Your task to perform on an android device: open app "Microsoft Authenticator" Image 0: 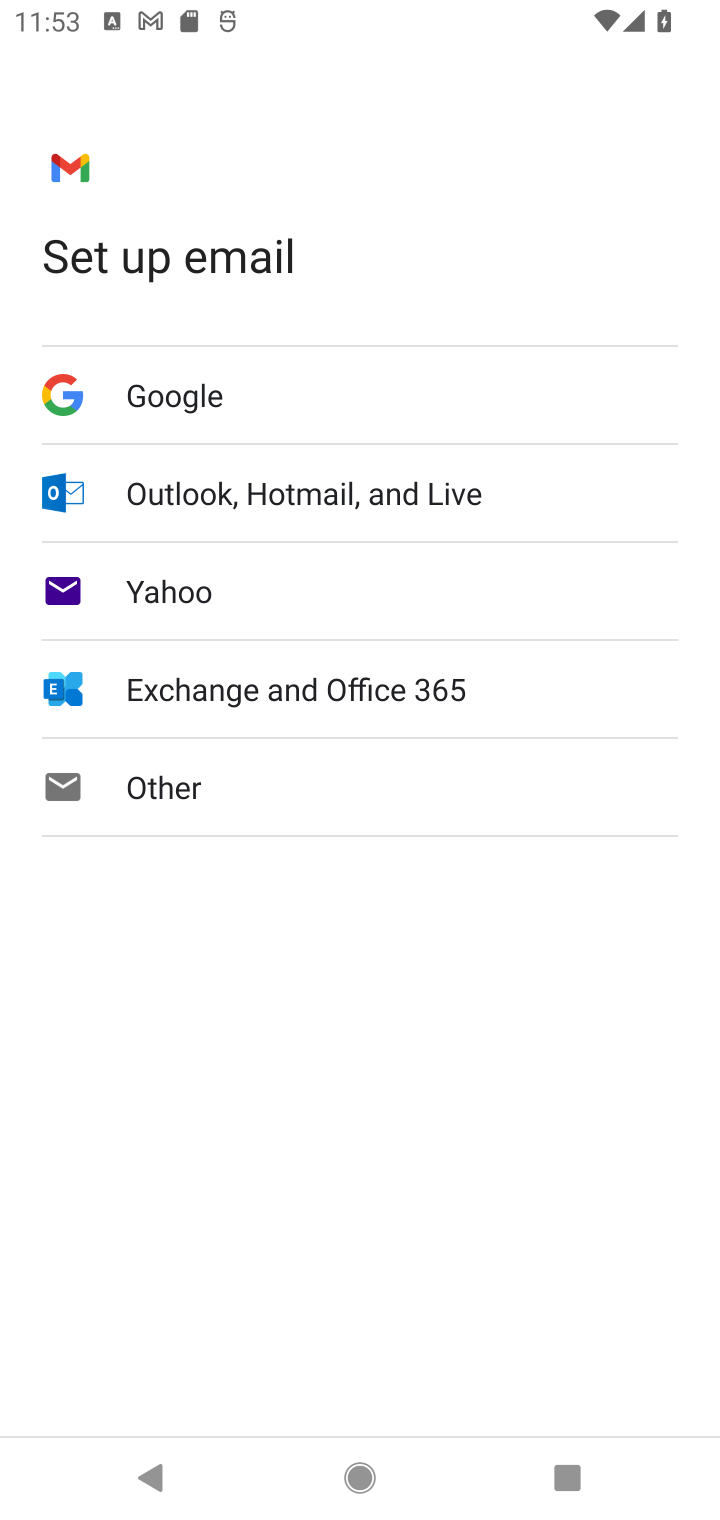
Step 0: press home button
Your task to perform on an android device: open app "Microsoft Authenticator" Image 1: 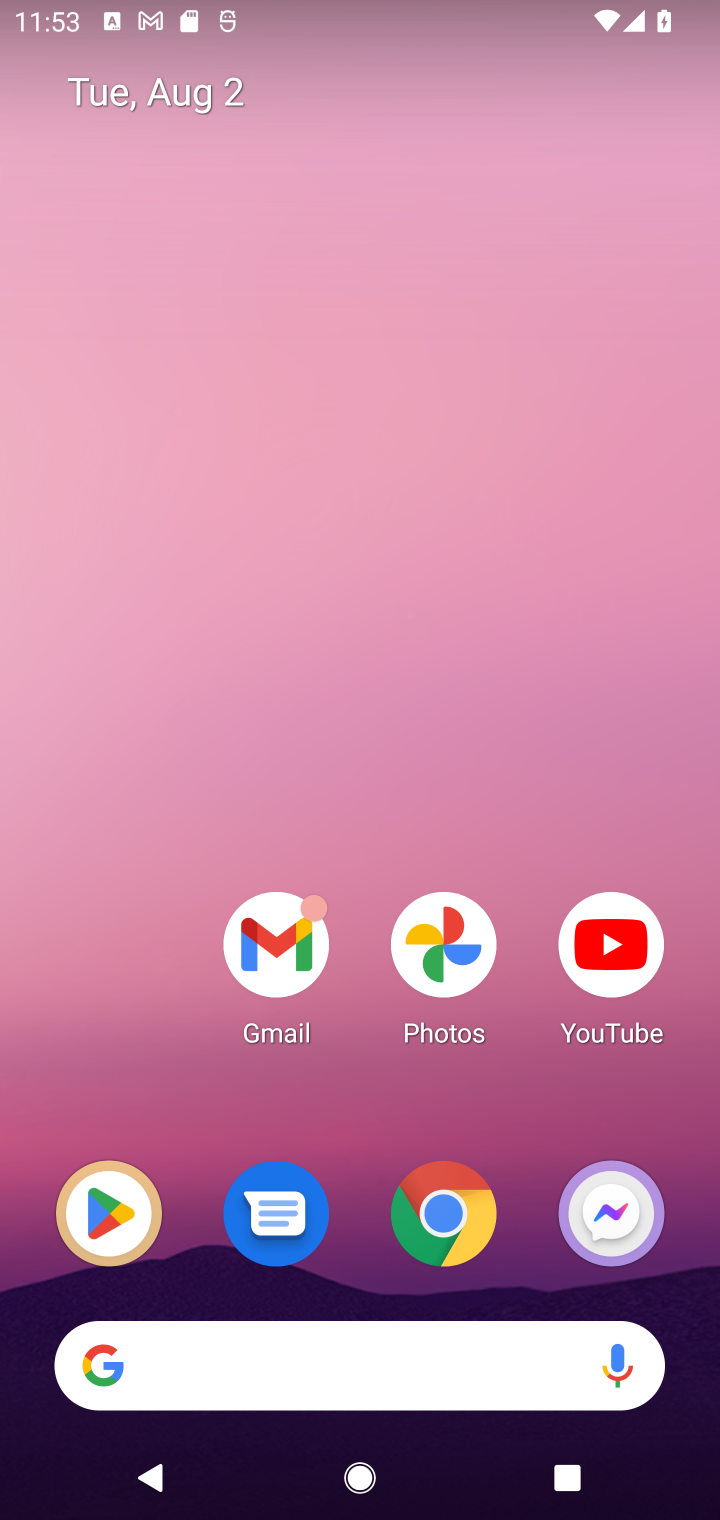
Step 1: click (107, 1215)
Your task to perform on an android device: open app "Microsoft Authenticator" Image 2: 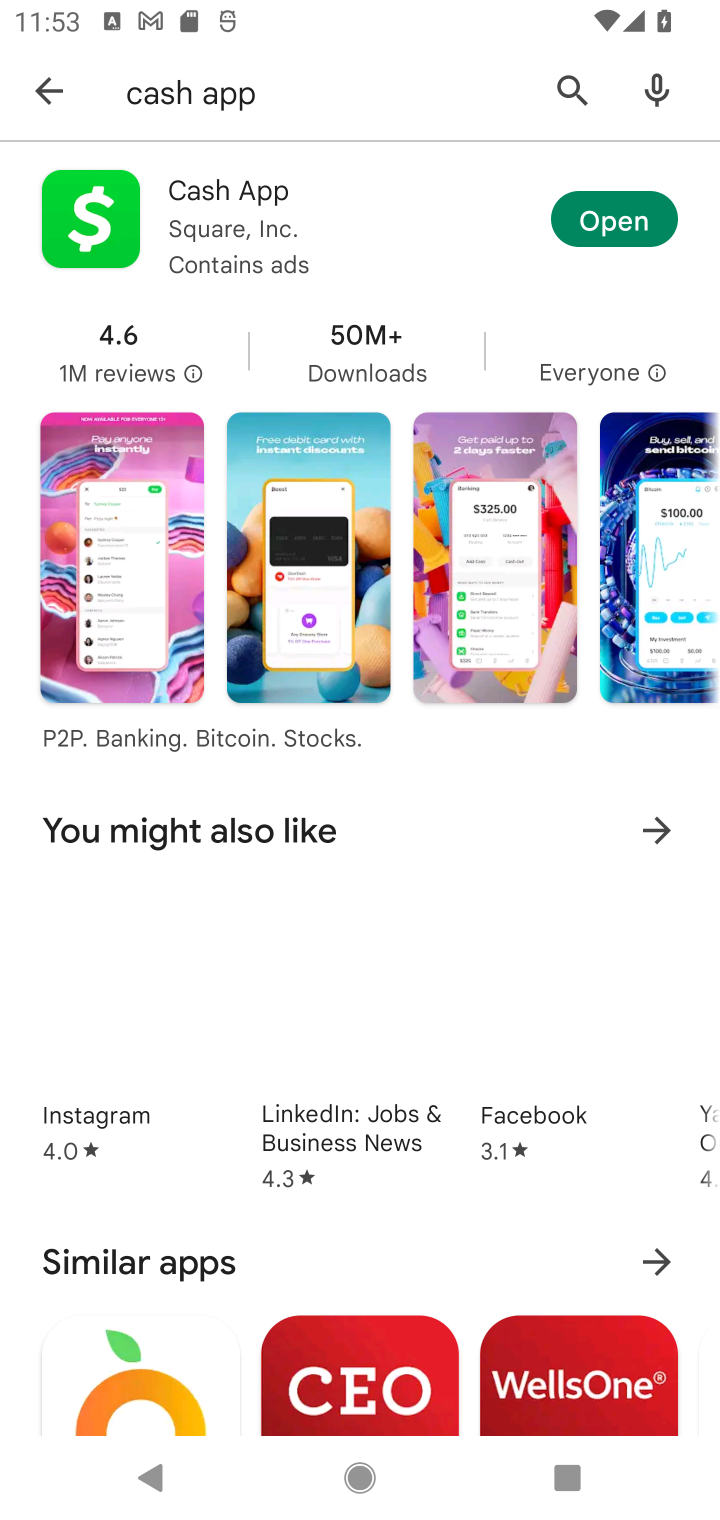
Step 2: click (42, 85)
Your task to perform on an android device: open app "Microsoft Authenticator" Image 3: 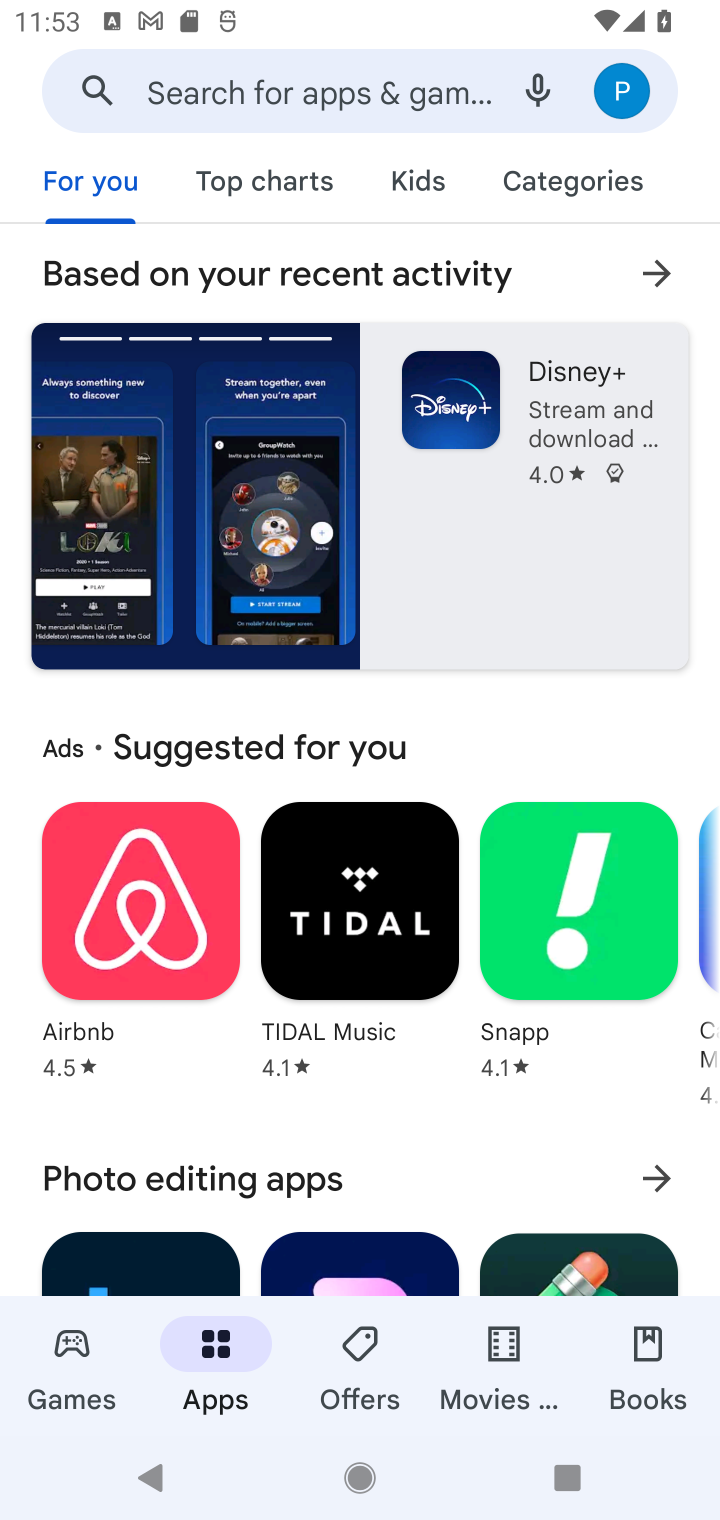
Step 3: click (316, 85)
Your task to perform on an android device: open app "Microsoft Authenticator" Image 4: 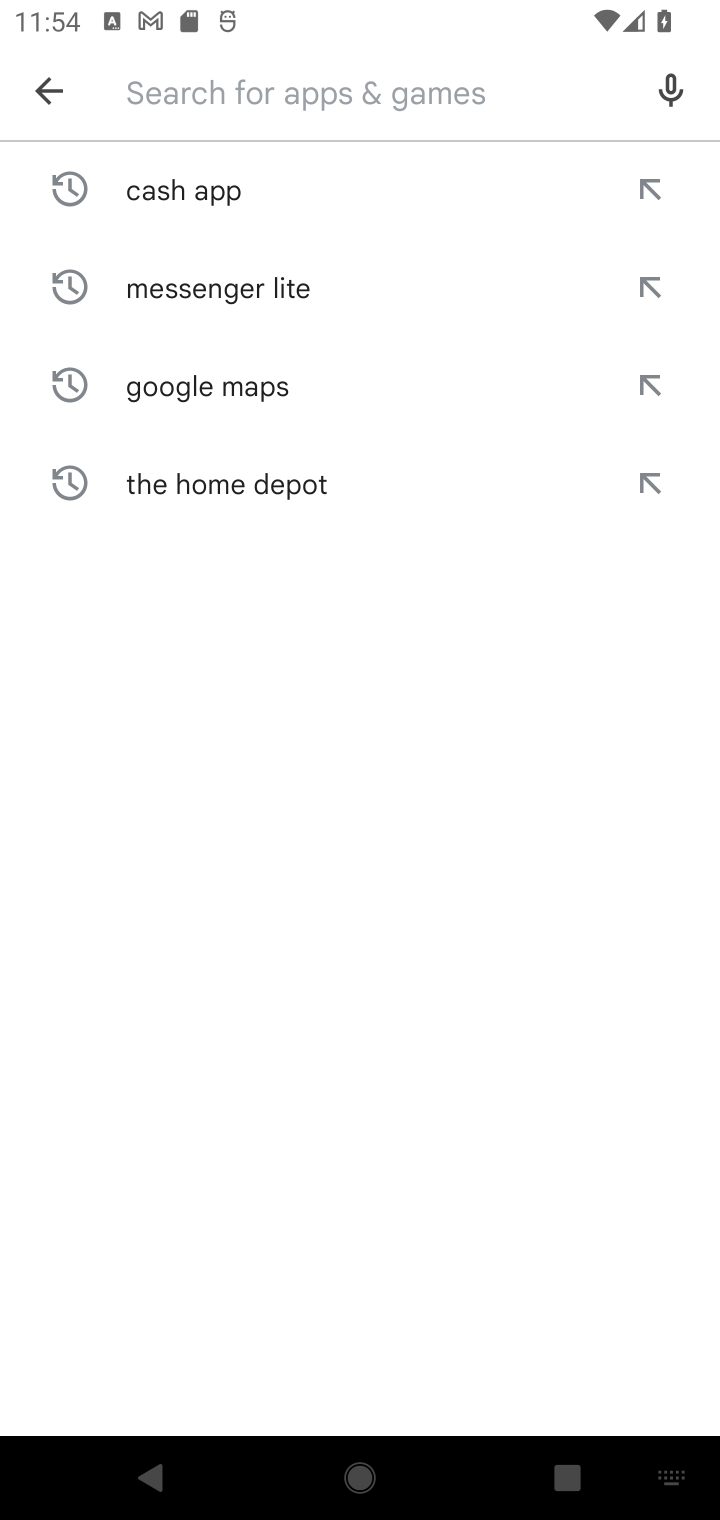
Step 4: type "Microsoft Authenticator"
Your task to perform on an android device: open app "Microsoft Authenticator" Image 5: 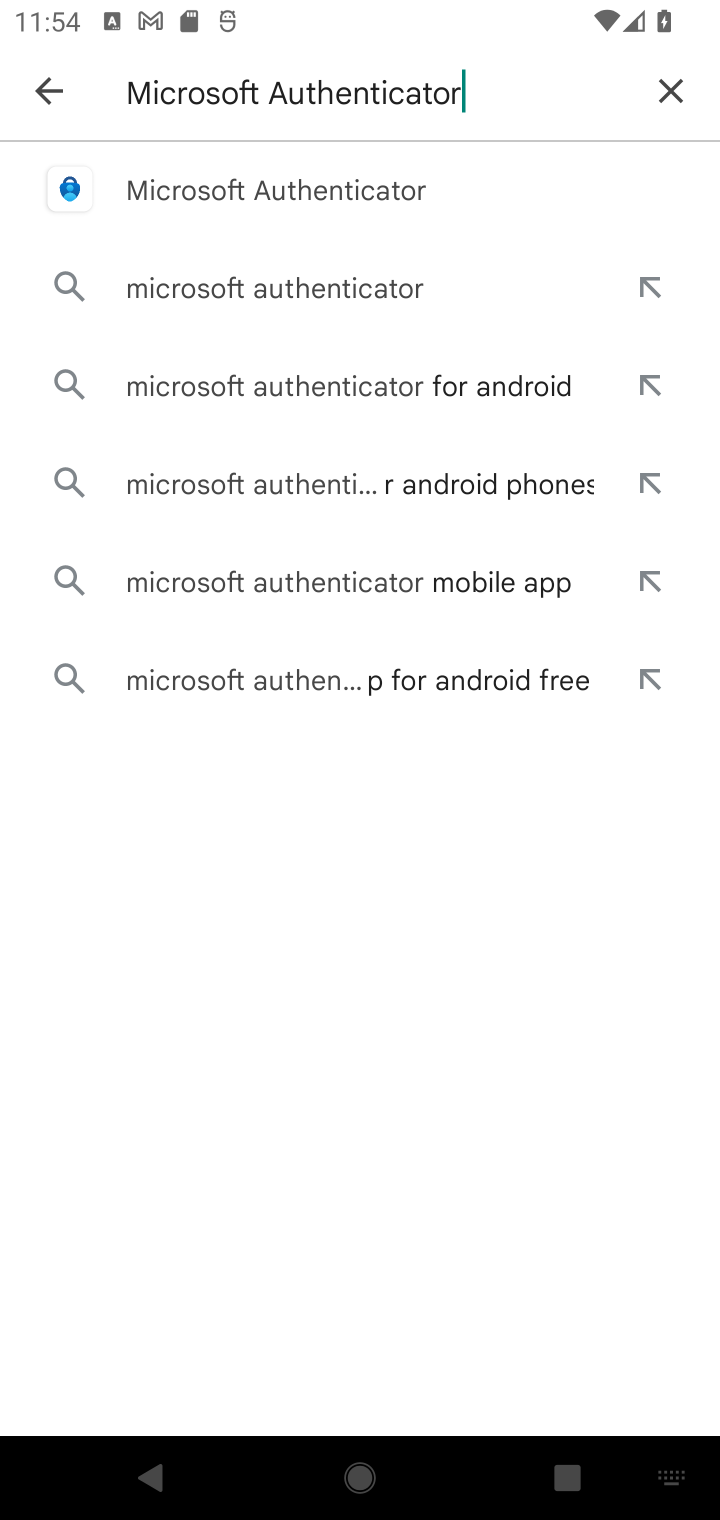
Step 5: click (282, 196)
Your task to perform on an android device: open app "Microsoft Authenticator" Image 6: 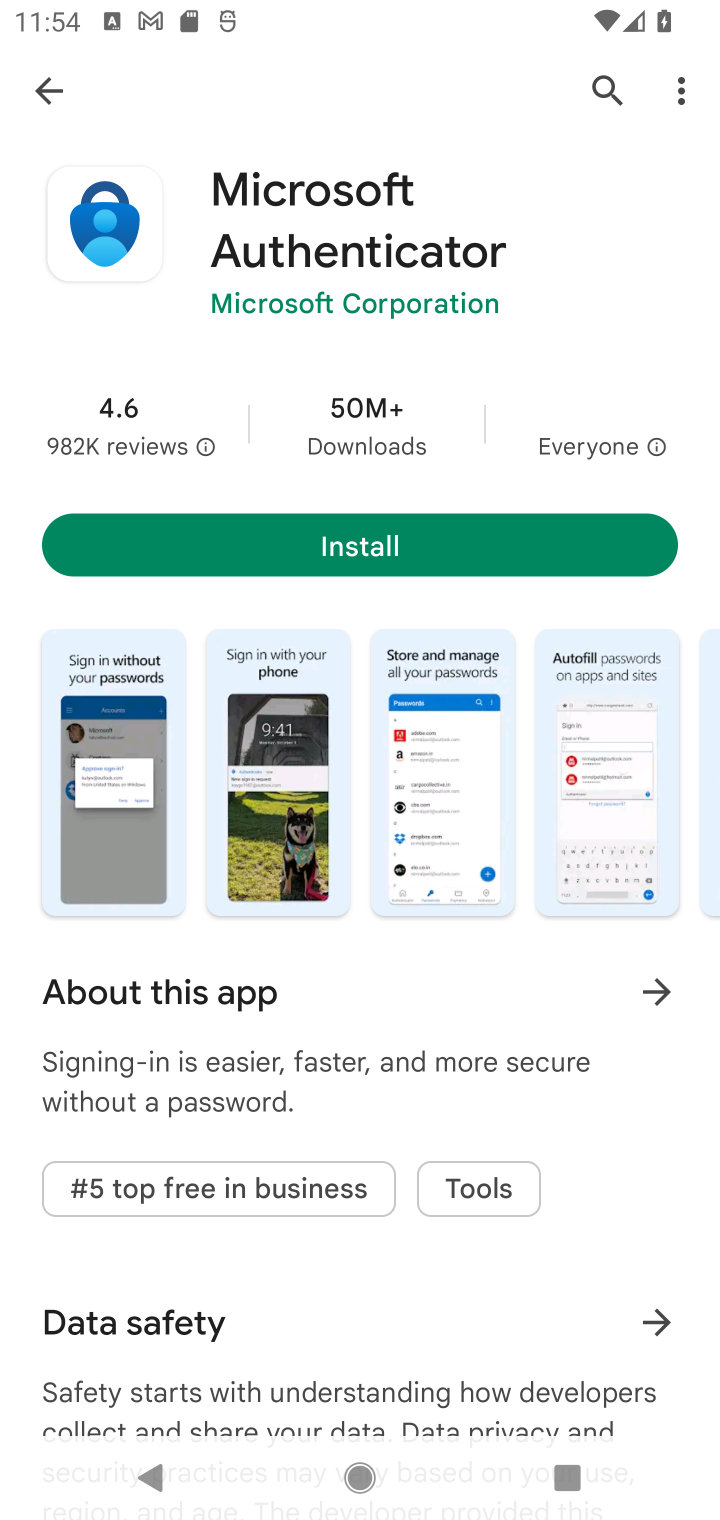
Step 6: click (351, 531)
Your task to perform on an android device: open app "Microsoft Authenticator" Image 7: 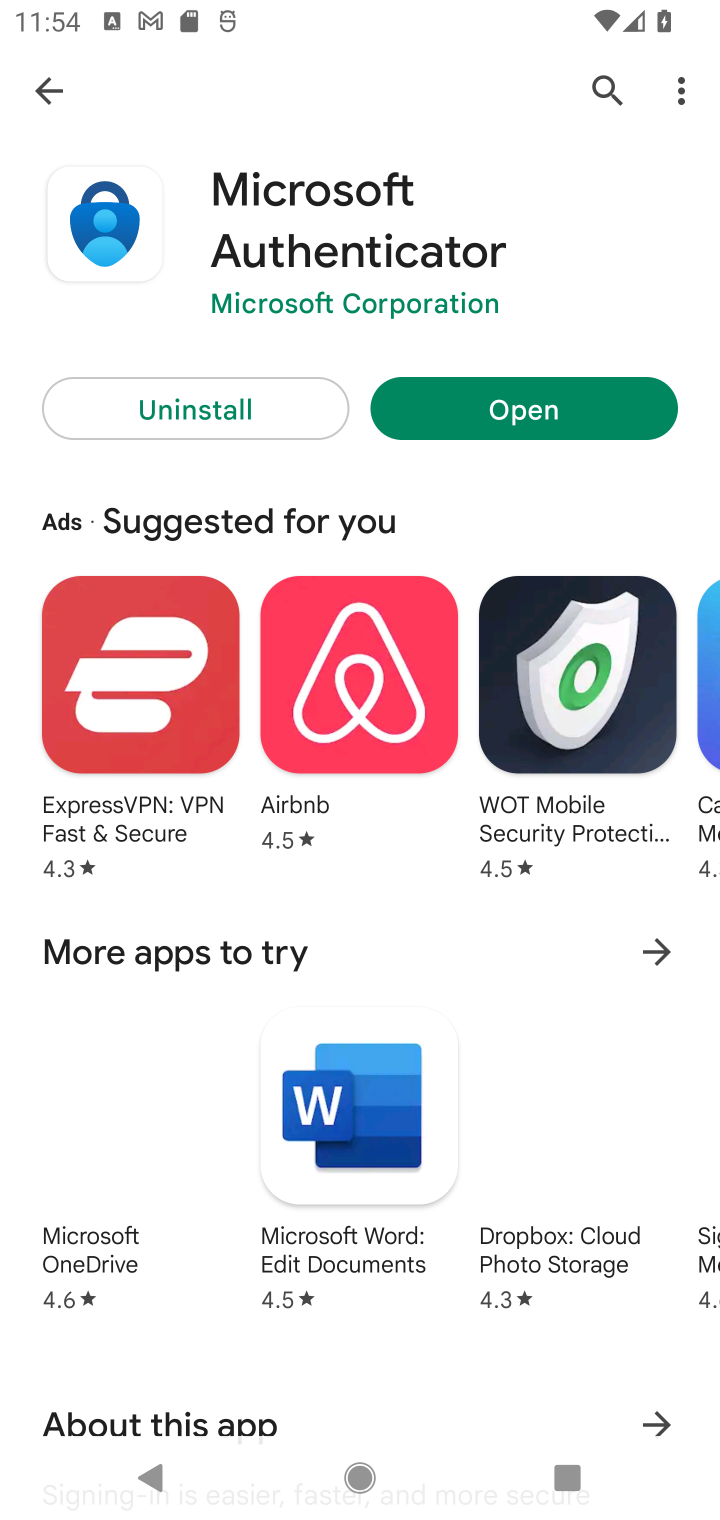
Step 7: click (515, 400)
Your task to perform on an android device: open app "Microsoft Authenticator" Image 8: 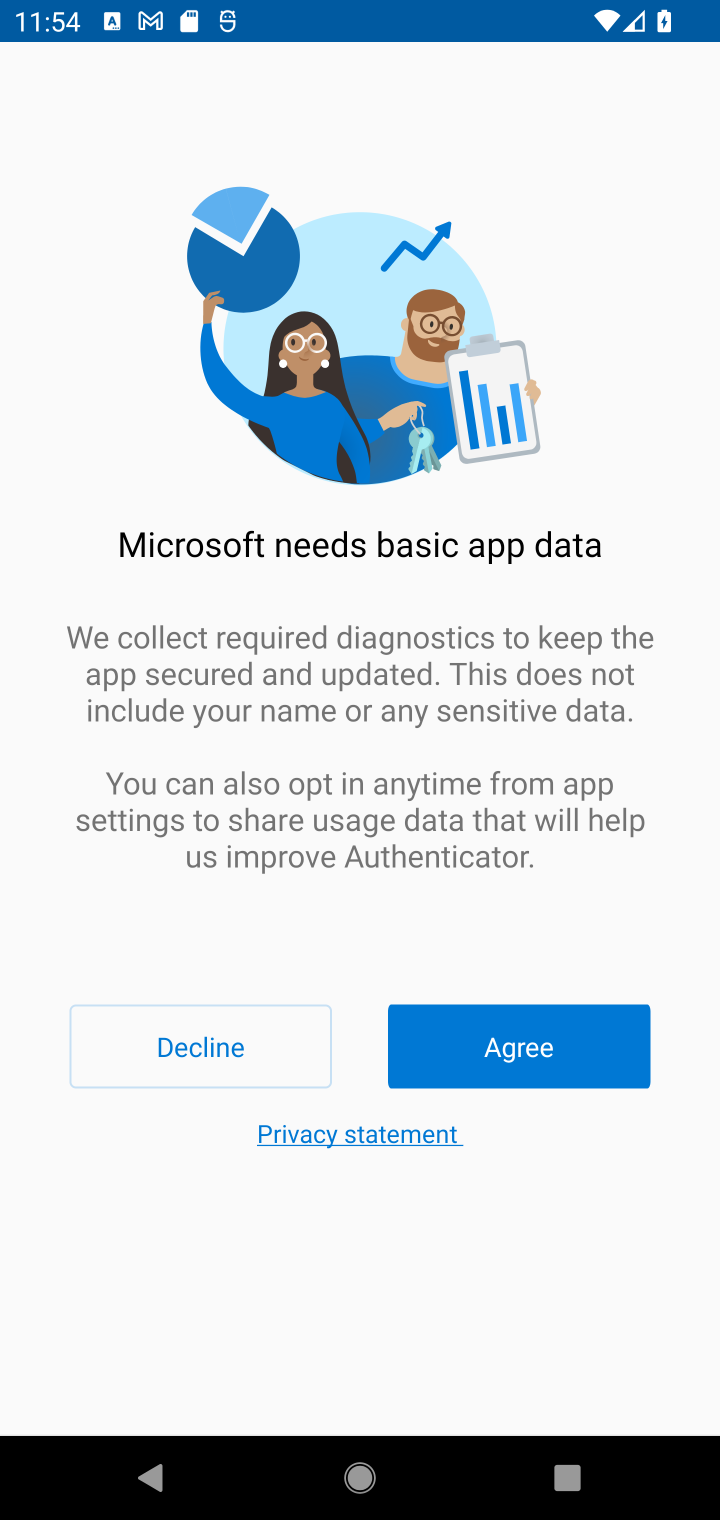
Step 8: task complete